Your task to perform on an android device: toggle data saver in the chrome app Image 0: 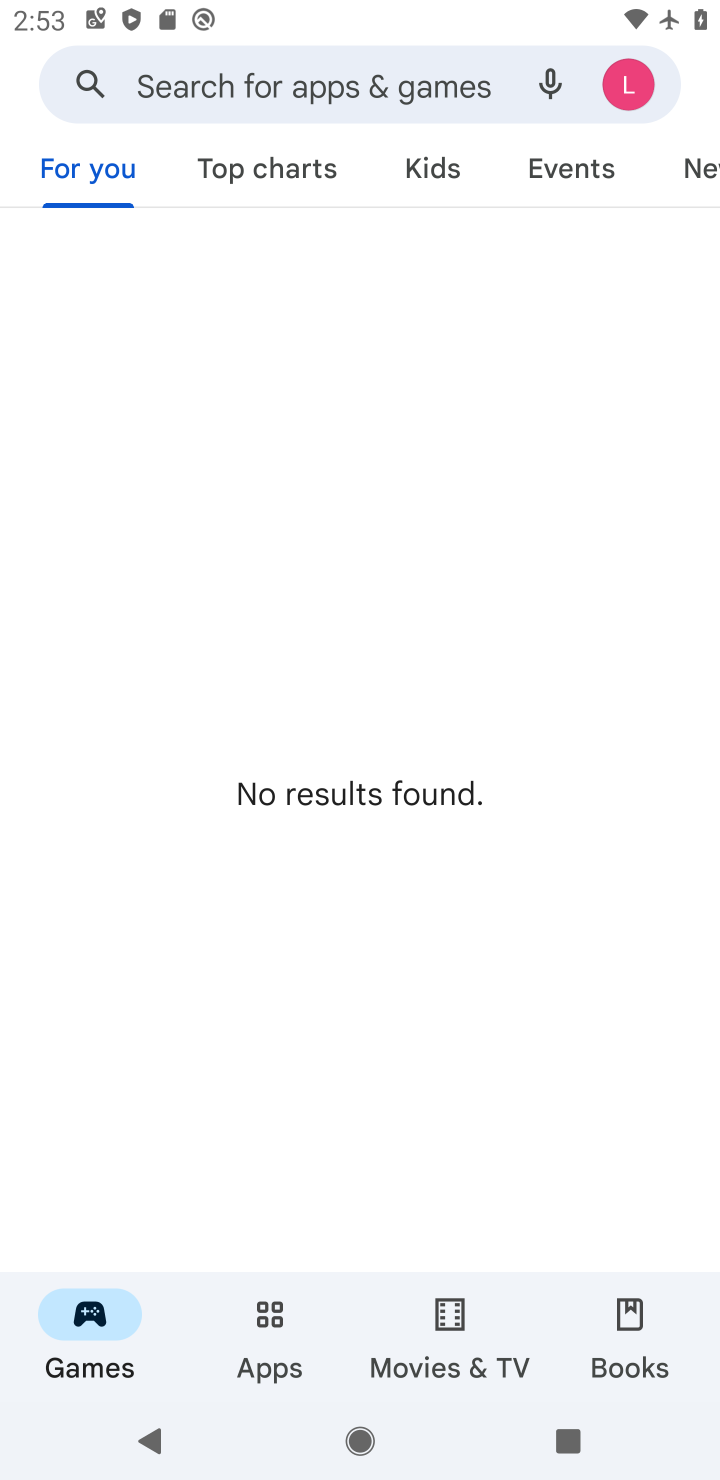
Step 0: press home button
Your task to perform on an android device: toggle data saver in the chrome app Image 1: 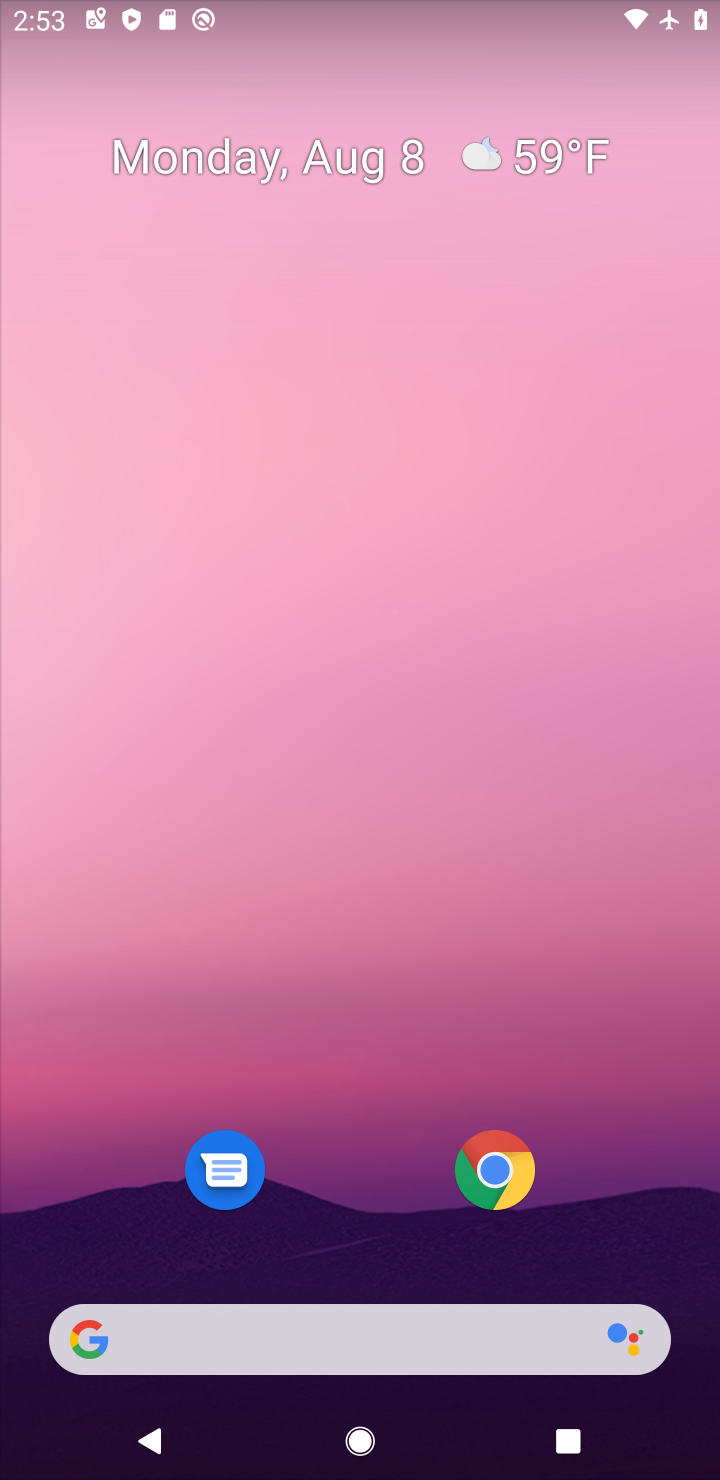
Step 1: click (485, 1189)
Your task to perform on an android device: toggle data saver in the chrome app Image 2: 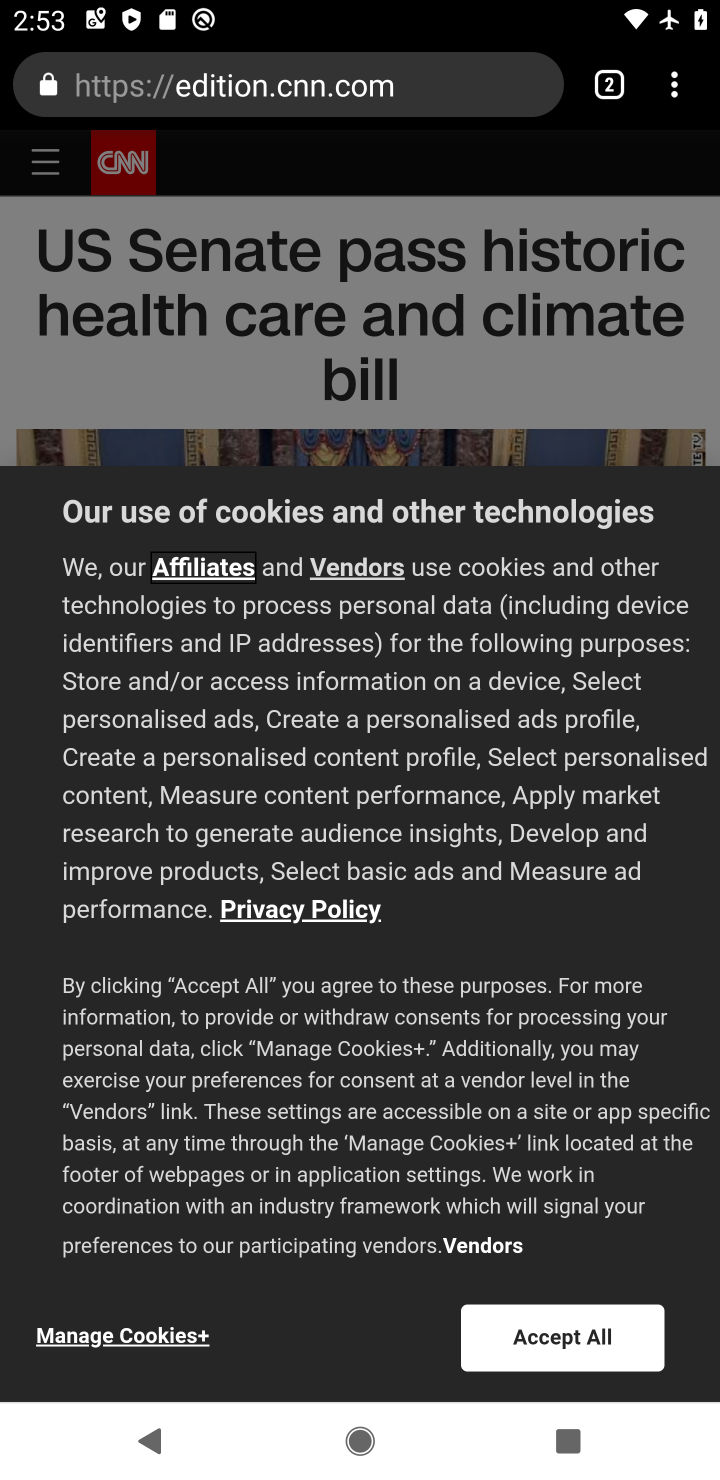
Step 2: drag from (668, 87) to (430, 929)
Your task to perform on an android device: toggle data saver in the chrome app Image 3: 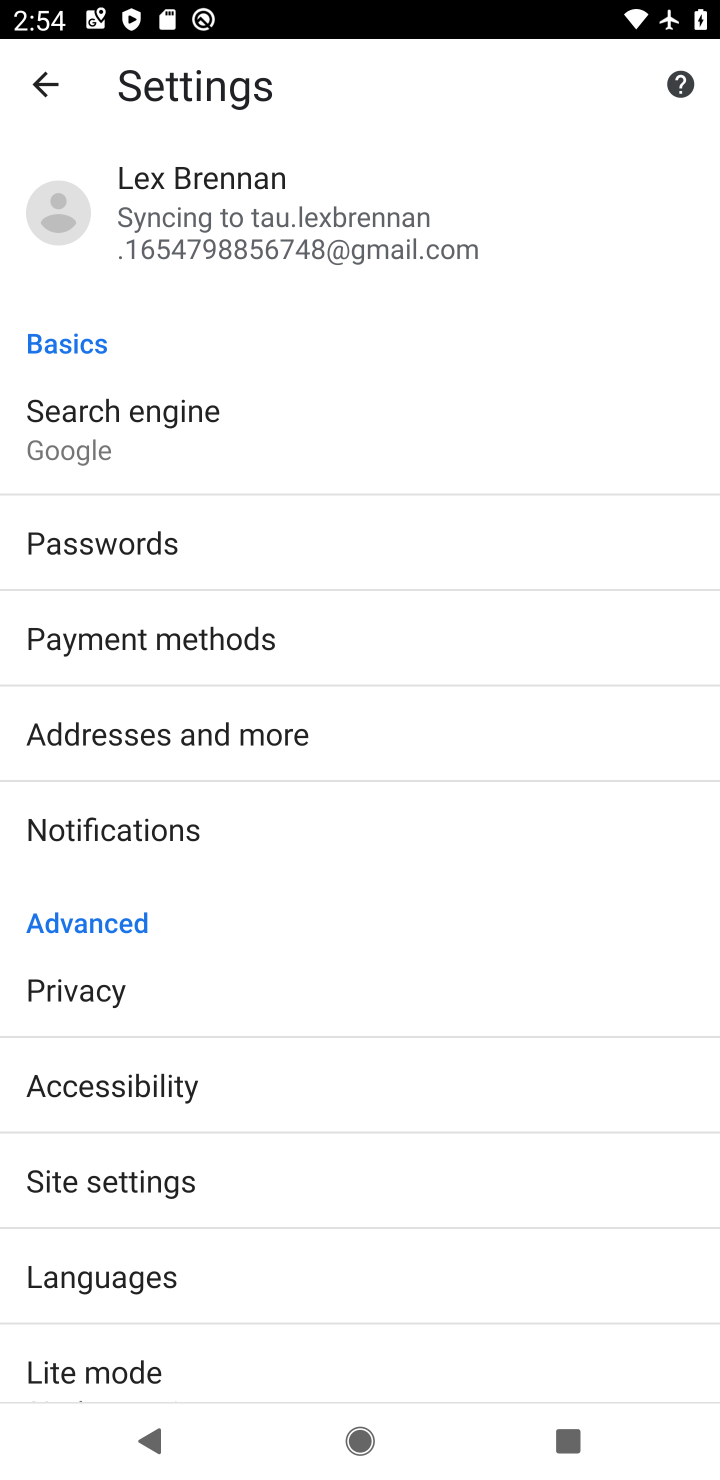
Step 3: drag from (212, 1338) to (216, 979)
Your task to perform on an android device: toggle data saver in the chrome app Image 4: 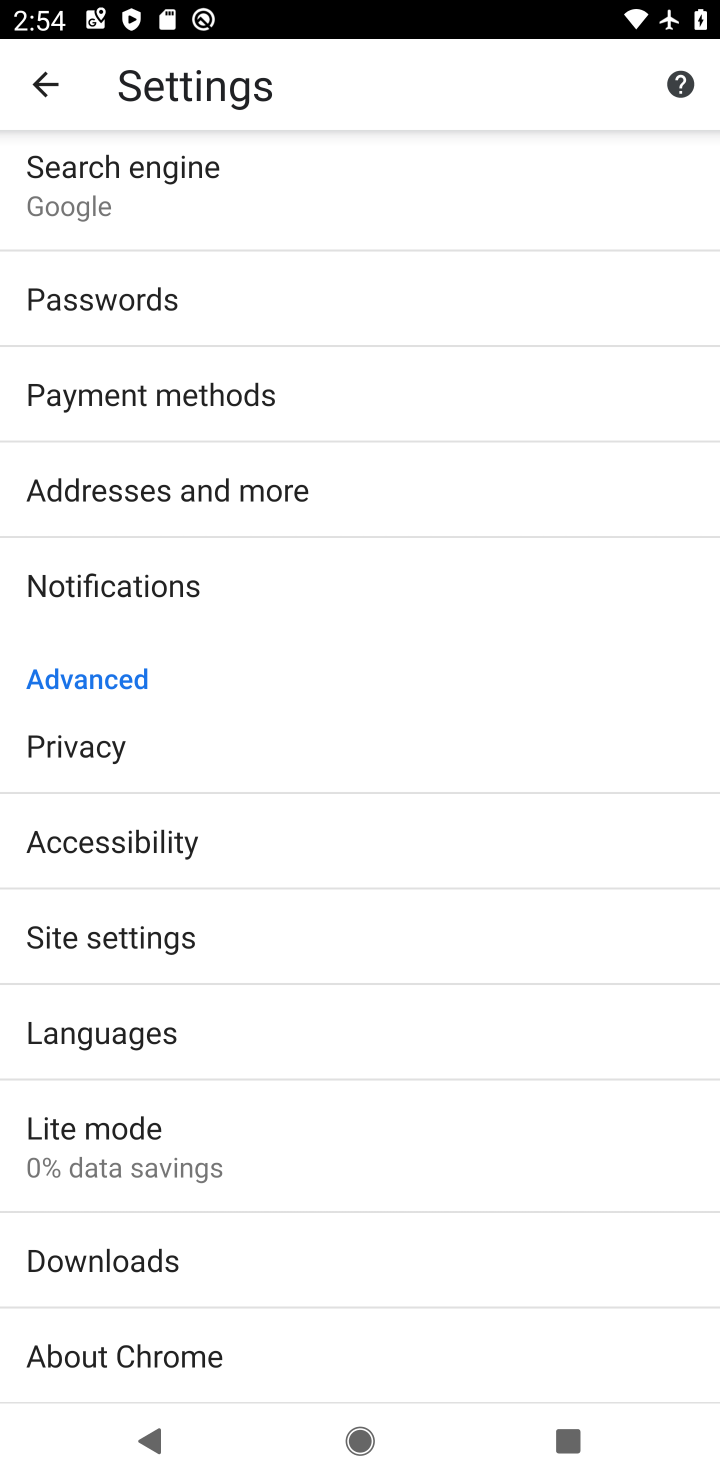
Step 4: click (167, 1151)
Your task to perform on an android device: toggle data saver in the chrome app Image 5: 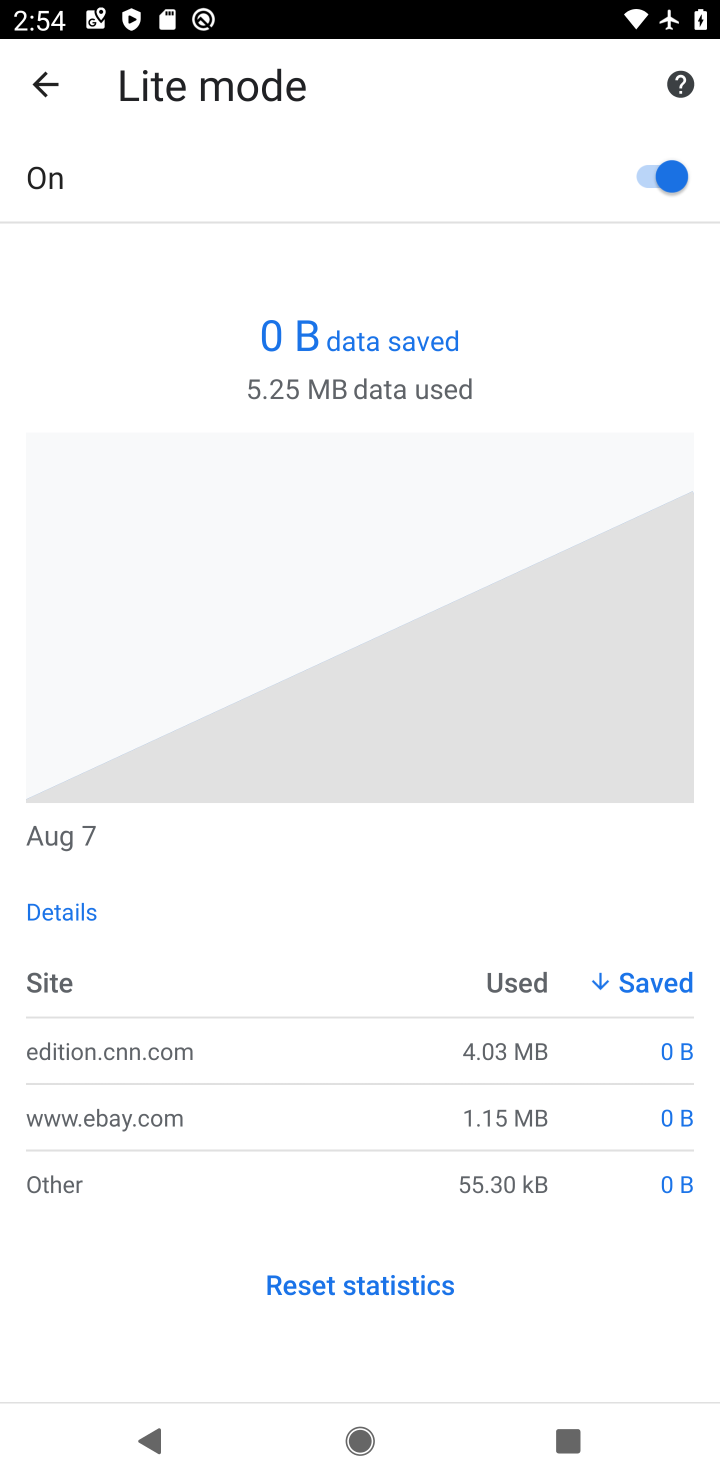
Step 5: task complete